Your task to perform on an android device: turn off location history Image 0: 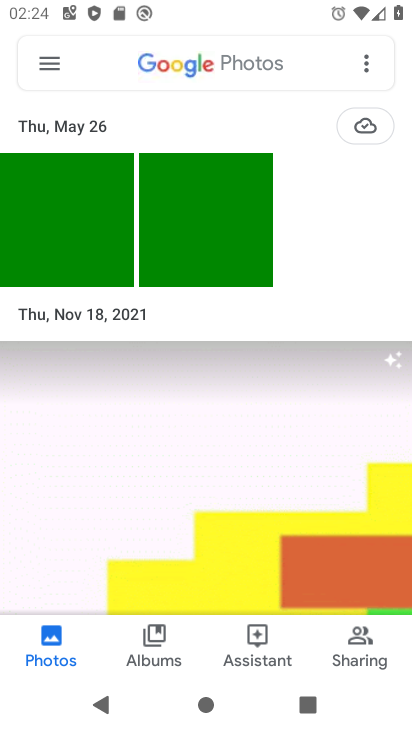
Step 0: press home button
Your task to perform on an android device: turn off location history Image 1: 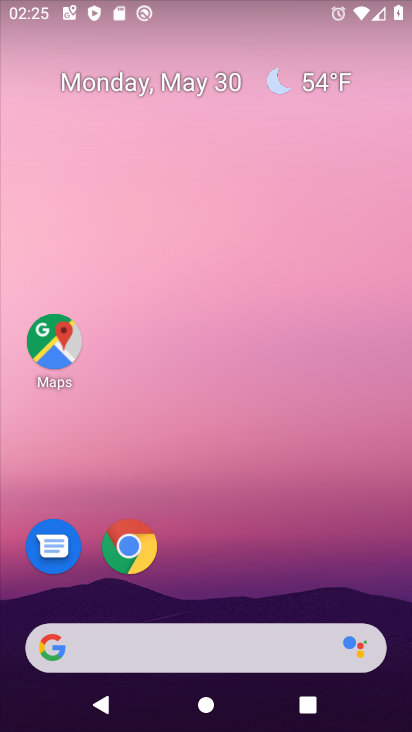
Step 1: drag from (214, 607) to (223, 147)
Your task to perform on an android device: turn off location history Image 2: 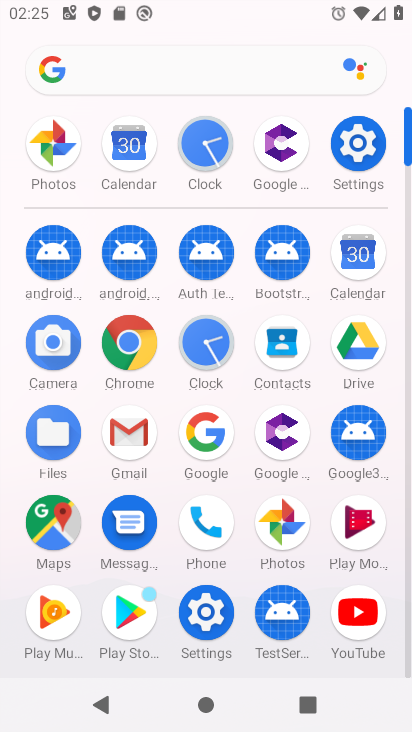
Step 2: click (356, 133)
Your task to perform on an android device: turn off location history Image 3: 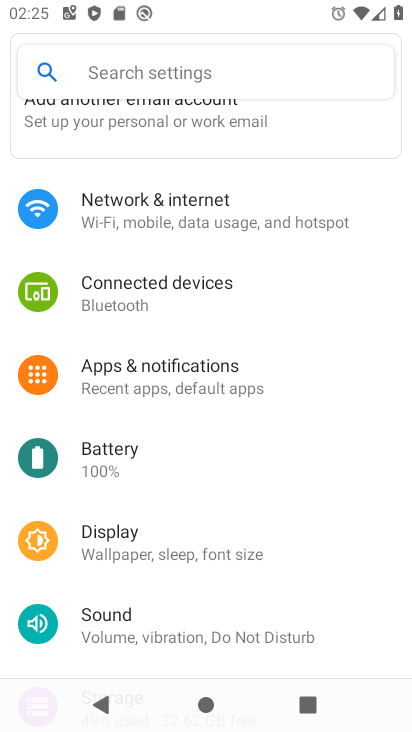
Step 3: drag from (173, 635) to (189, 124)
Your task to perform on an android device: turn off location history Image 4: 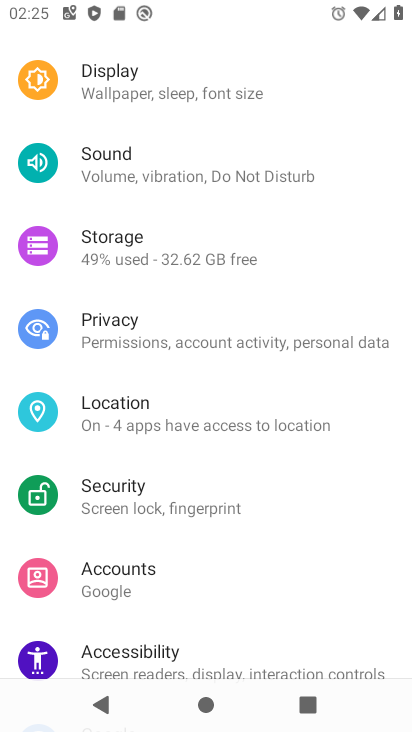
Step 4: click (164, 406)
Your task to perform on an android device: turn off location history Image 5: 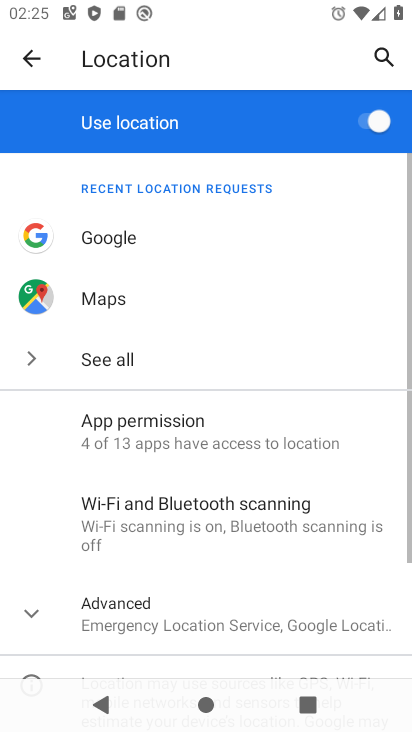
Step 5: click (73, 610)
Your task to perform on an android device: turn off location history Image 6: 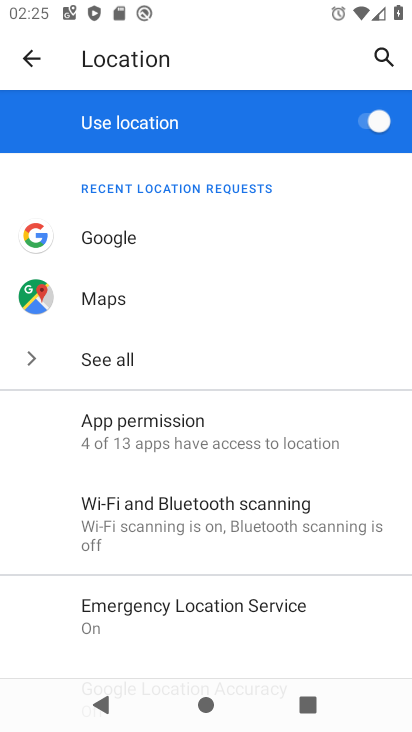
Step 6: drag from (220, 567) to (273, 45)
Your task to perform on an android device: turn off location history Image 7: 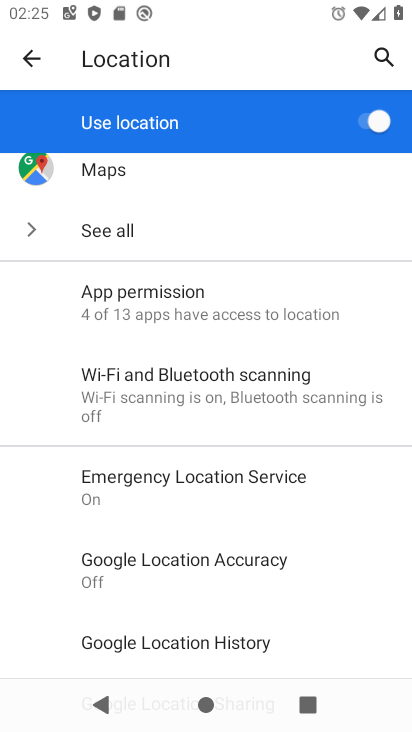
Step 7: click (188, 652)
Your task to perform on an android device: turn off location history Image 8: 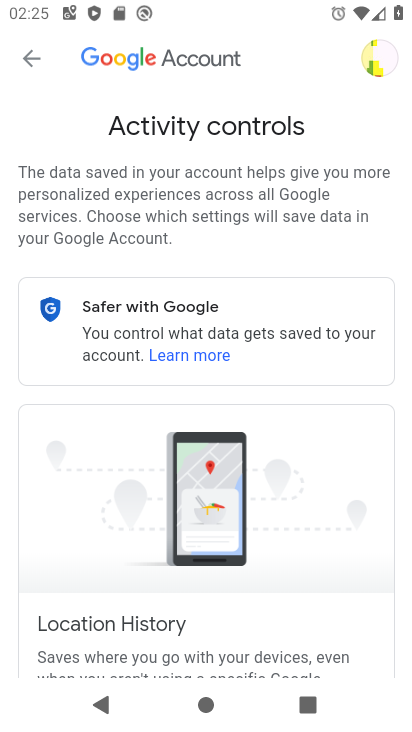
Step 8: drag from (268, 531) to (283, 35)
Your task to perform on an android device: turn off location history Image 9: 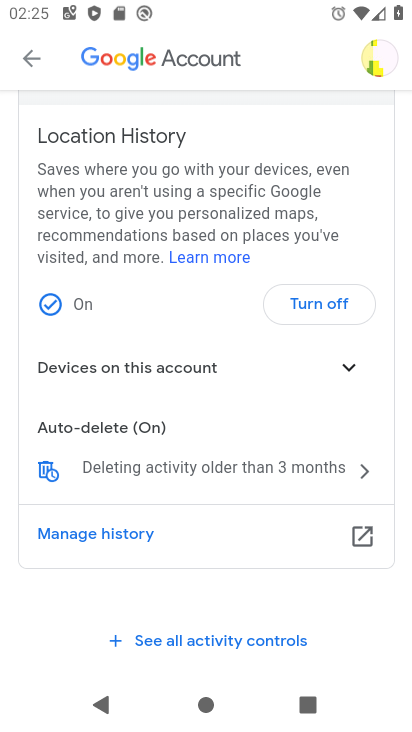
Step 9: click (311, 298)
Your task to perform on an android device: turn off location history Image 10: 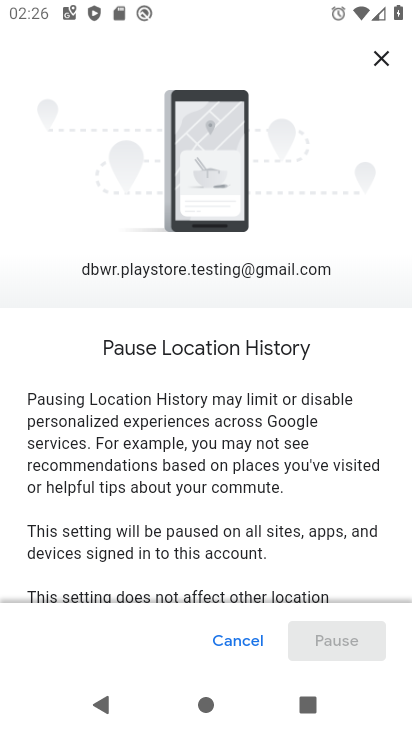
Step 10: drag from (243, 506) to (274, 66)
Your task to perform on an android device: turn off location history Image 11: 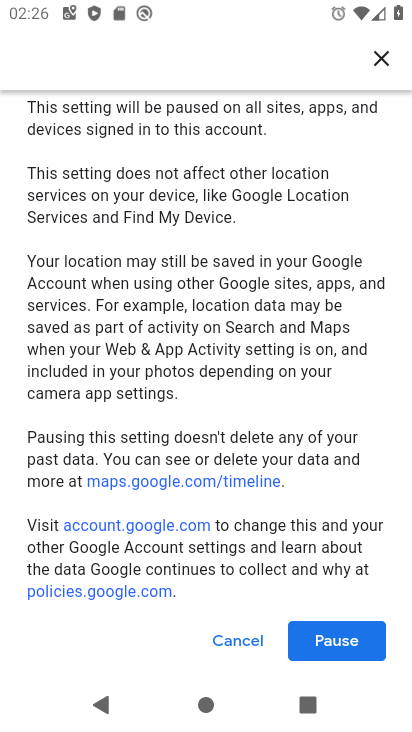
Step 11: drag from (212, 490) to (253, 191)
Your task to perform on an android device: turn off location history Image 12: 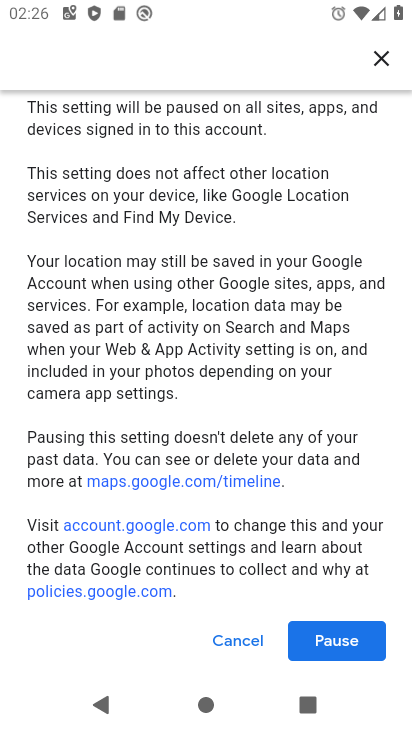
Step 12: click (325, 645)
Your task to perform on an android device: turn off location history Image 13: 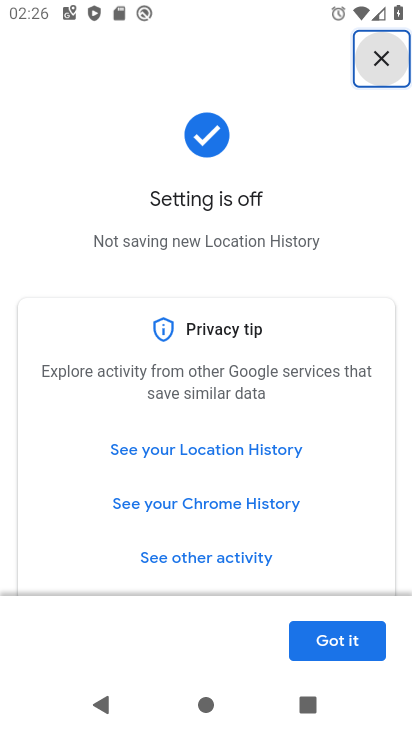
Step 13: click (326, 636)
Your task to perform on an android device: turn off location history Image 14: 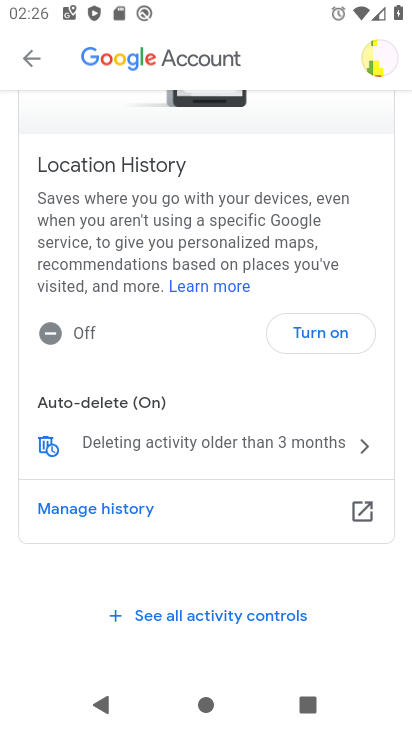
Step 14: task complete